Your task to perform on an android device: Open location settings Image 0: 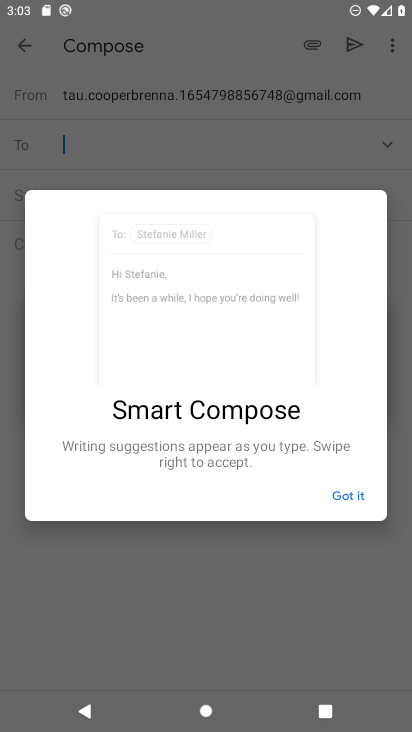
Step 0: press home button
Your task to perform on an android device: Open location settings Image 1: 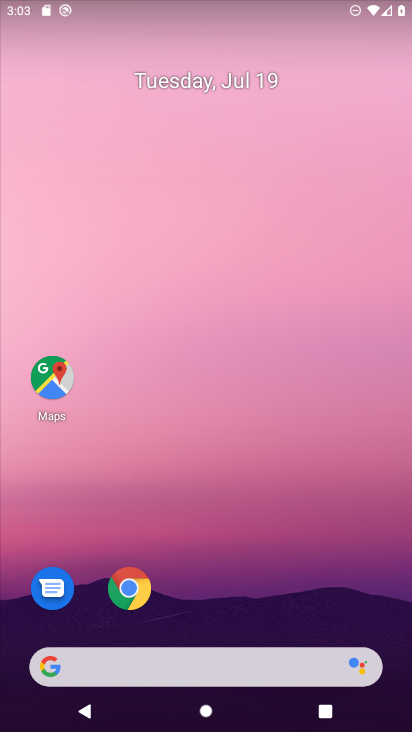
Step 1: drag from (215, 575) to (189, 102)
Your task to perform on an android device: Open location settings Image 2: 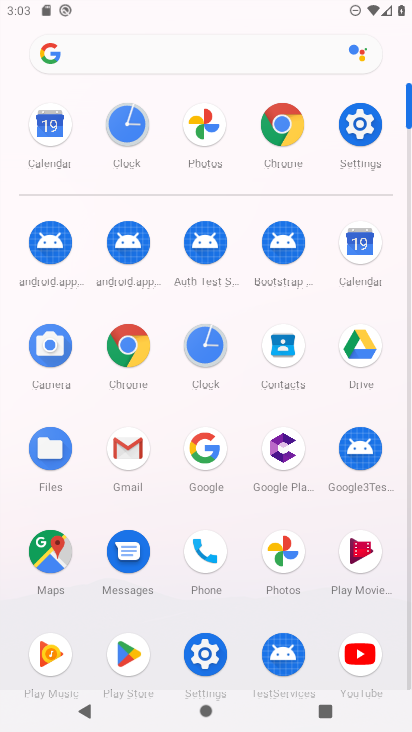
Step 2: click (371, 128)
Your task to perform on an android device: Open location settings Image 3: 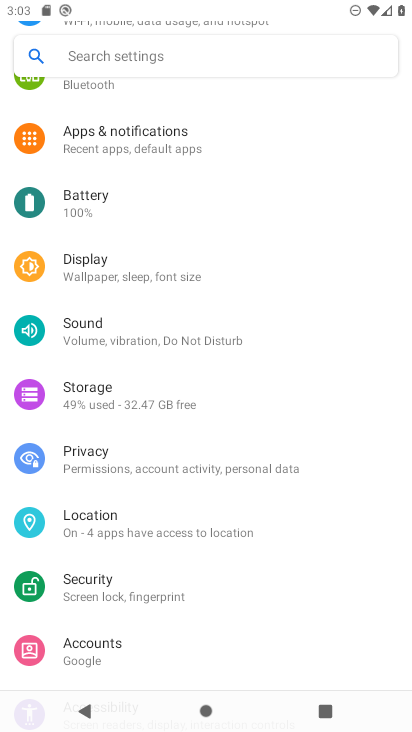
Step 3: click (97, 511)
Your task to perform on an android device: Open location settings Image 4: 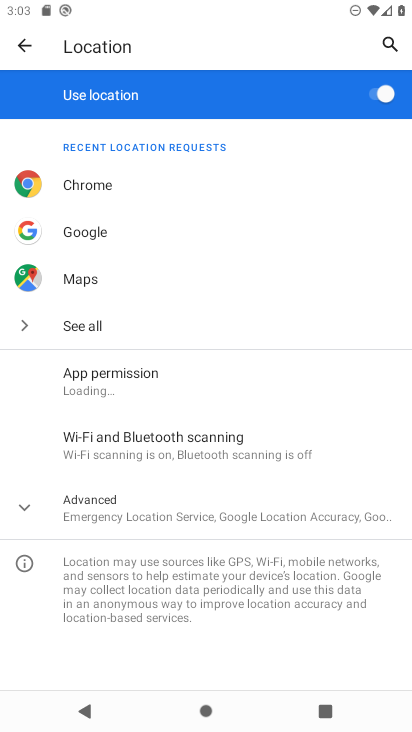
Step 4: task complete